Your task to perform on an android device: see tabs open on other devices in the chrome app Image 0: 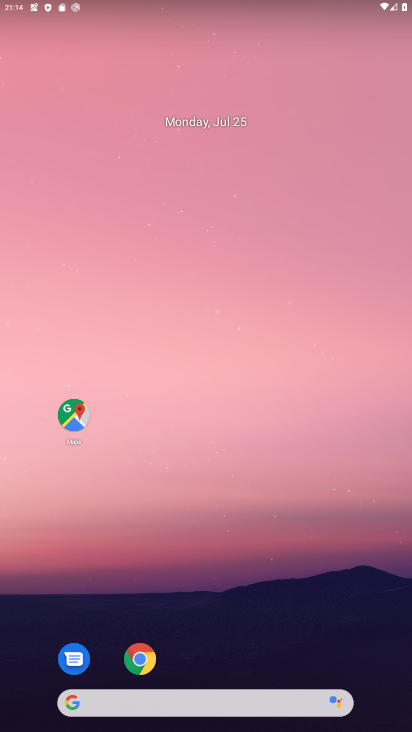
Step 0: click (125, 662)
Your task to perform on an android device: see tabs open on other devices in the chrome app Image 1: 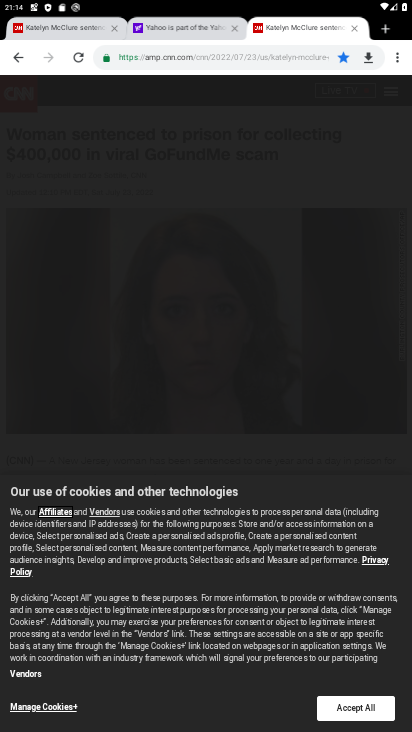
Step 1: click (400, 61)
Your task to perform on an android device: see tabs open on other devices in the chrome app Image 2: 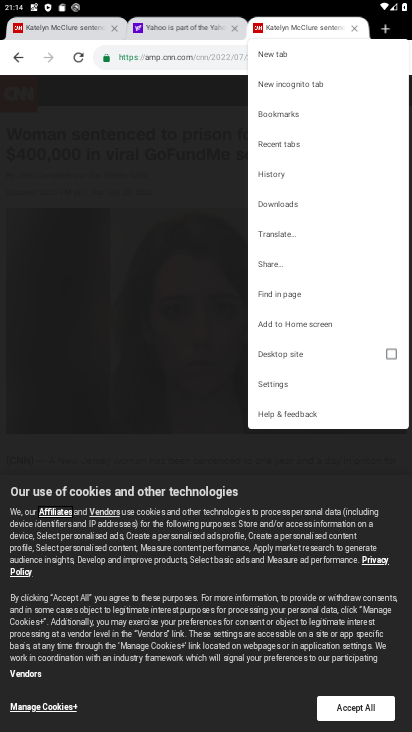
Step 2: click (384, 181)
Your task to perform on an android device: see tabs open on other devices in the chrome app Image 3: 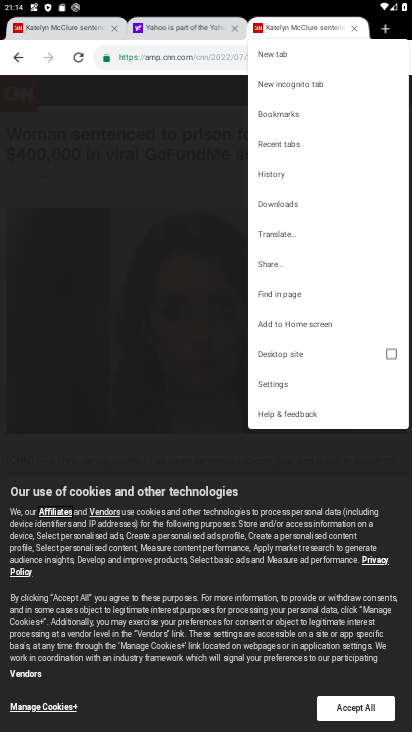
Step 3: click (325, 144)
Your task to perform on an android device: see tabs open on other devices in the chrome app Image 4: 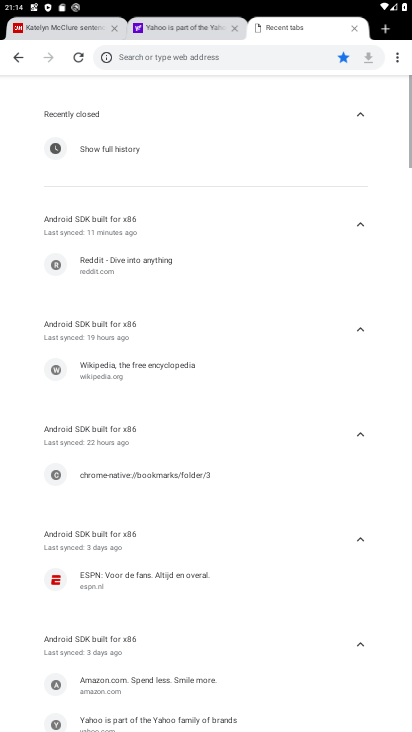
Step 4: task complete